Your task to perform on an android device: Check the weather Image 0: 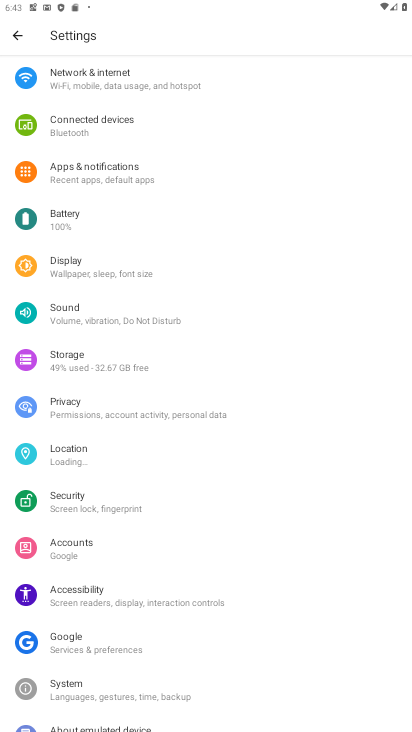
Step 0: press home button
Your task to perform on an android device: Check the weather Image 1: 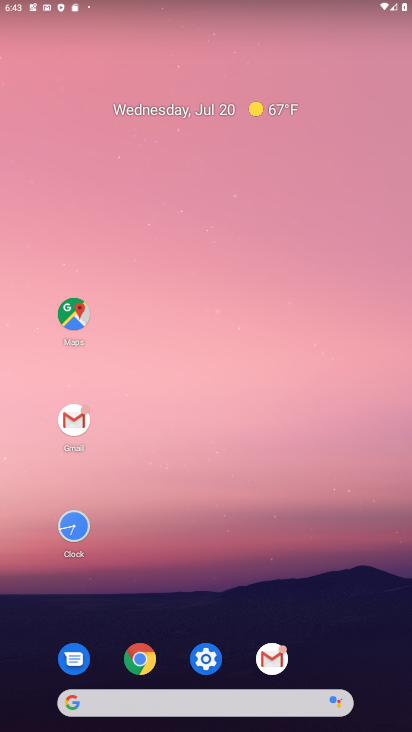
Step 1: click (171, 702)
Your task to perform on an android device: Check the weather Image 2: 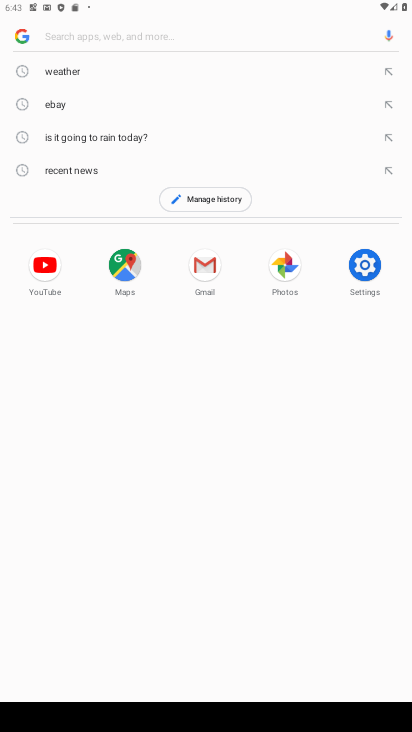
Step 2: click (50, 66)
Your task to perform on an android device: Check the weather Image 3: 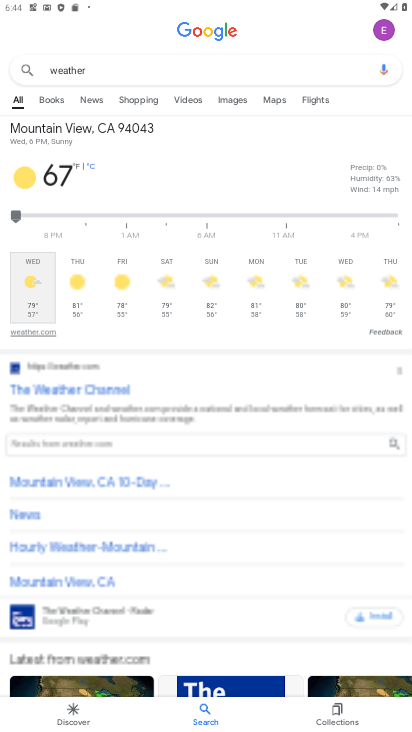
Step 3: task complete